Your task to perform on an android device: create a new album in the google photos Image 0: 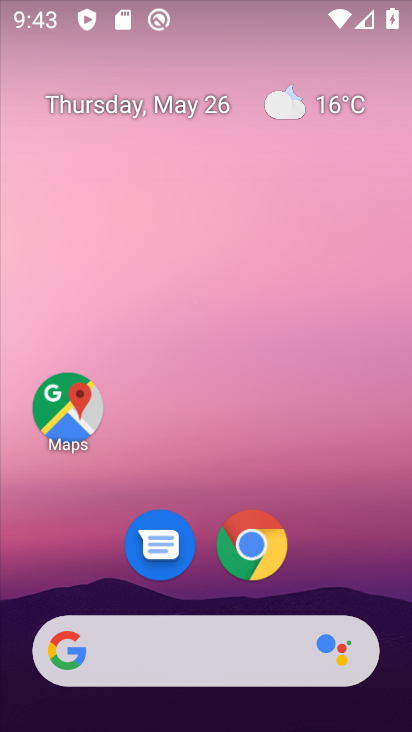
Step 0: drag from (325, 565) to (357, 77)
Your task to perform on an android device: create a new album in the google photos Image 1: 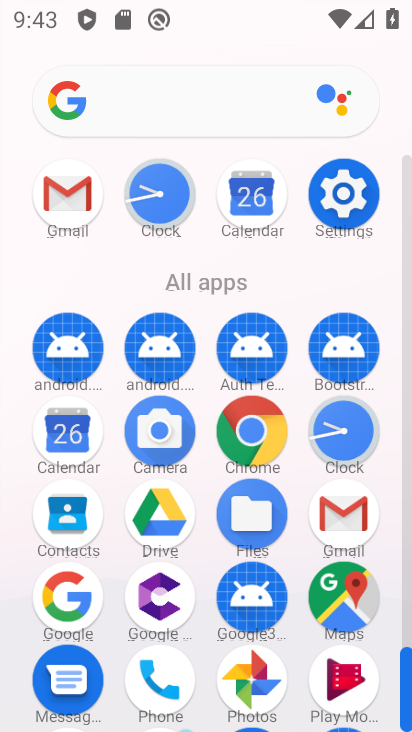
Step 1: click (245, 677)
Your task to perform on an android device: create a new album in the google photos Image 2: 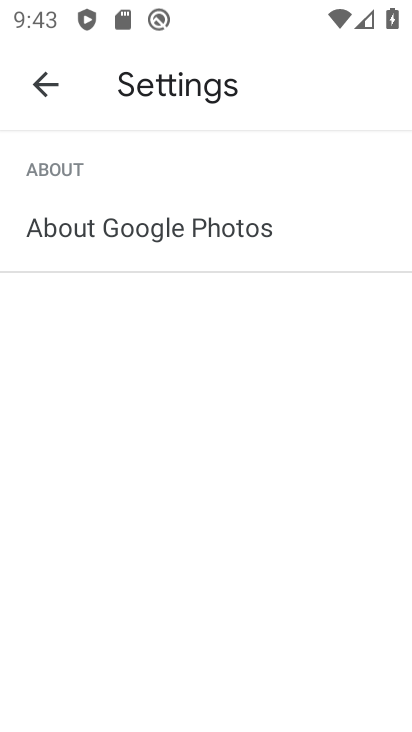
Step 2: press back button
Your task to perform on an android device: create a new album in the google photos Image 3: 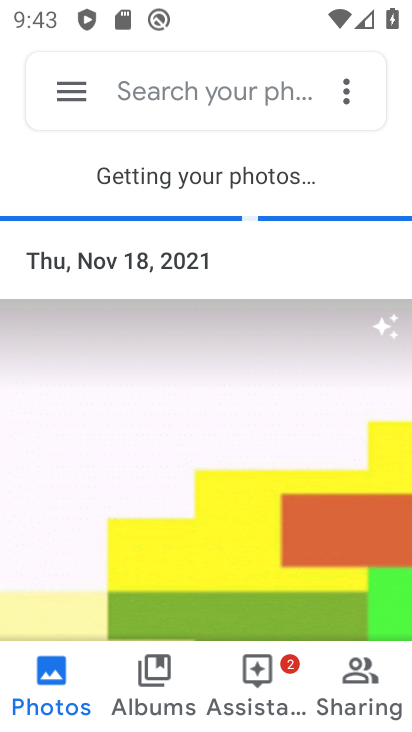
Step 3: click (161, 686)
Your task to perform on an android device: create a new album in the google photos Image 4: 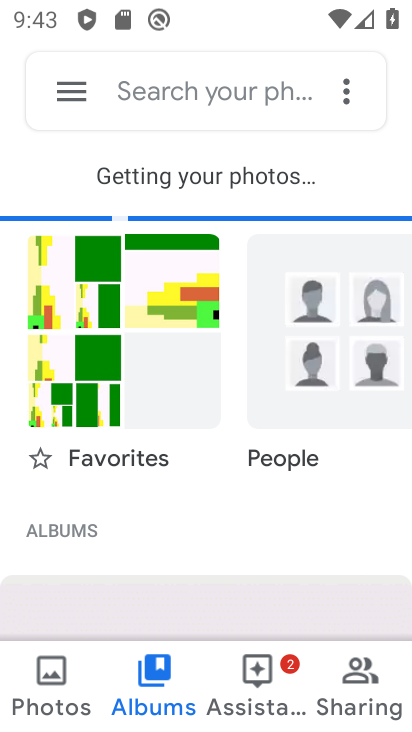
Step 4: drag from (182, 551) to (239, 641)
Your task to perform on an android device: create a new album in the google photos Image 5: 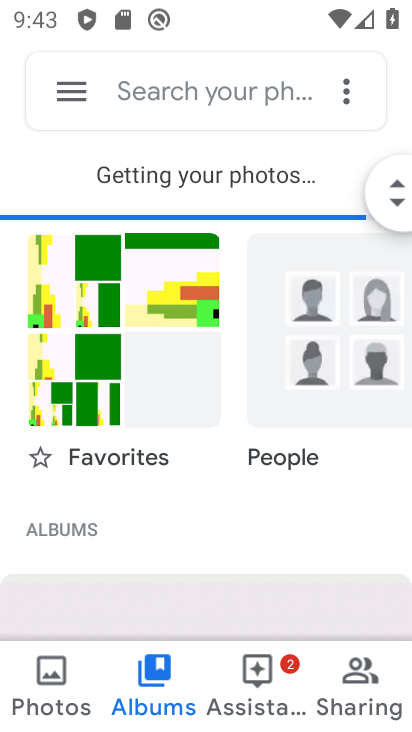
Step 5: click (336, 88)
Your task to perform on an android device: create a new album in the google photos Image 6: 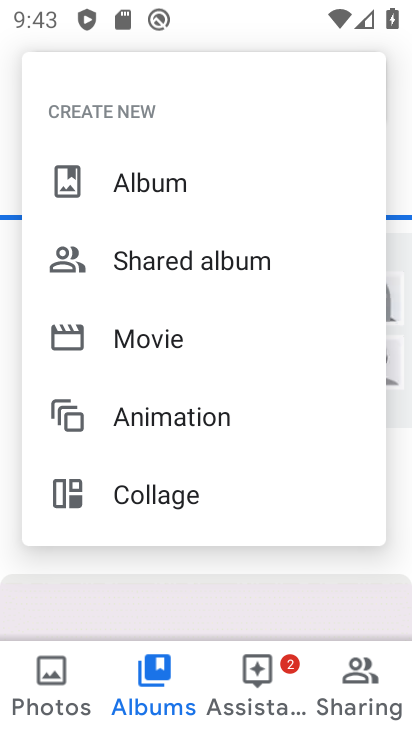
Step 6: click (129, 177)
Your task to perform on an android device: create a new album in the google photos Image 7: 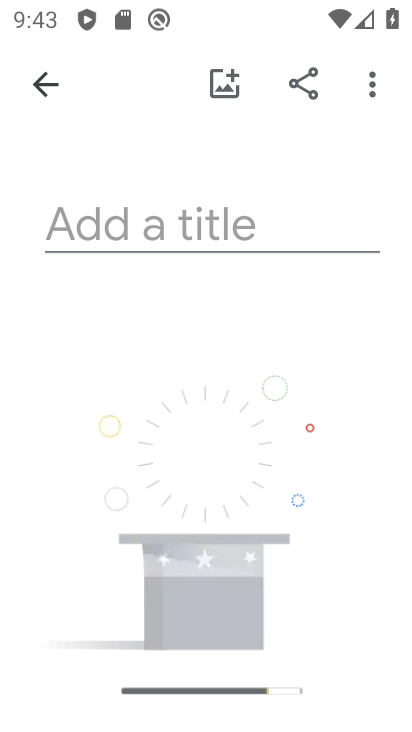
Step 7: click (212, 232)
Your task to perform on an android device: create a new album in the google photos Image 8: 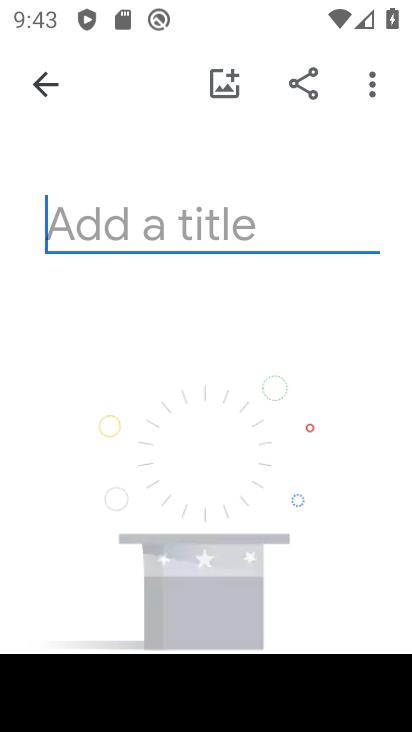
Step 8: type "huj"
Your task to perform on an android device: create a new album in the google photos Image 9: 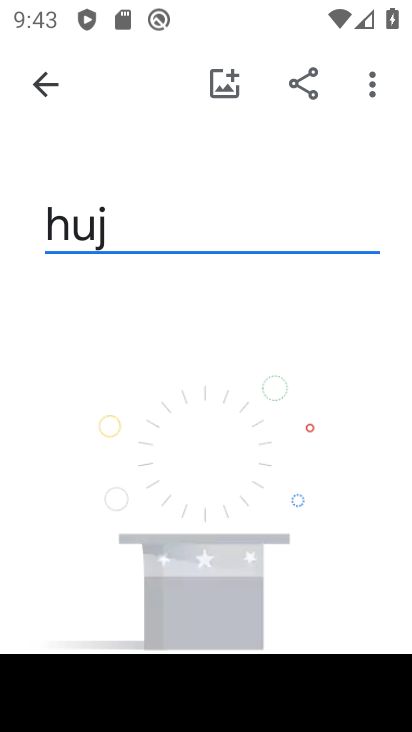
Step 9: drag from (229, 498) to (204, 182)
Your task to perform on an android device: create a new album in the google photos Image 10: 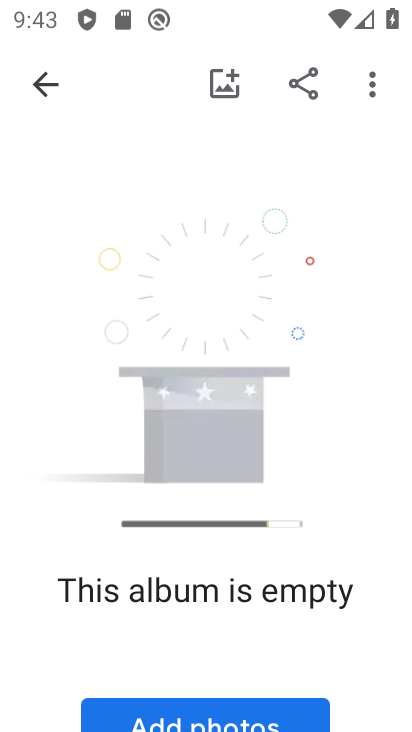
Step 10: click (210, 720)
Your task to perform on an android device: create a new album in the google photos Image 11: 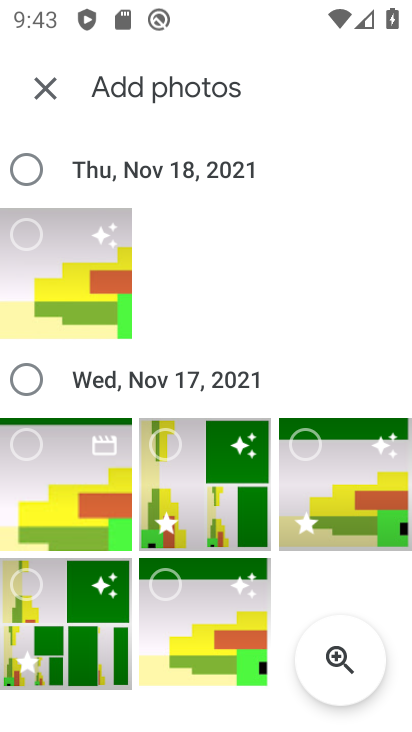
Step 11: click (20, 381)
Your task to perform on an android device: create a new album in the google photos Image 12: 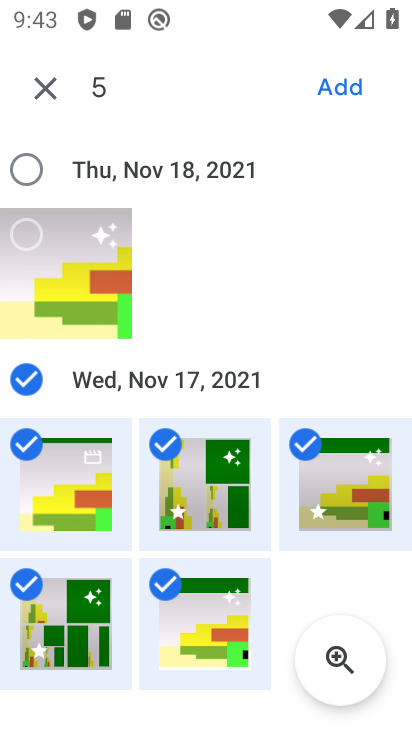
Step 12: click (337, 88)
Your task to perform on an android device: create a new album in the google photos Image 13: 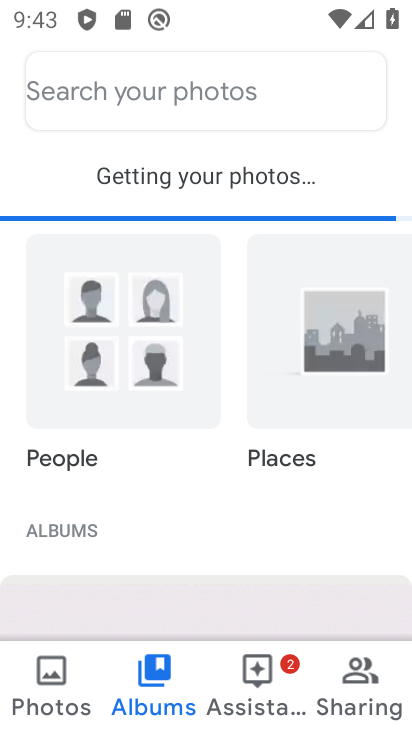
Step 13: task complete